Your task to perform on an android device: toggle improve location accuracy Image 0: 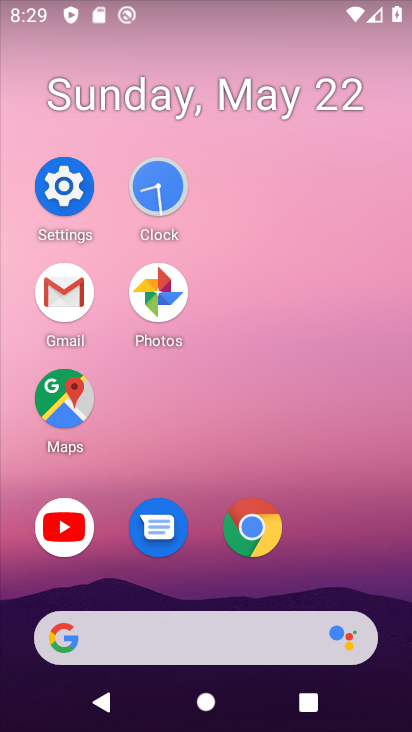
Step 0: click (87, 200)
Your task to perform on an android device: toggle improve location accuracy Image 1: 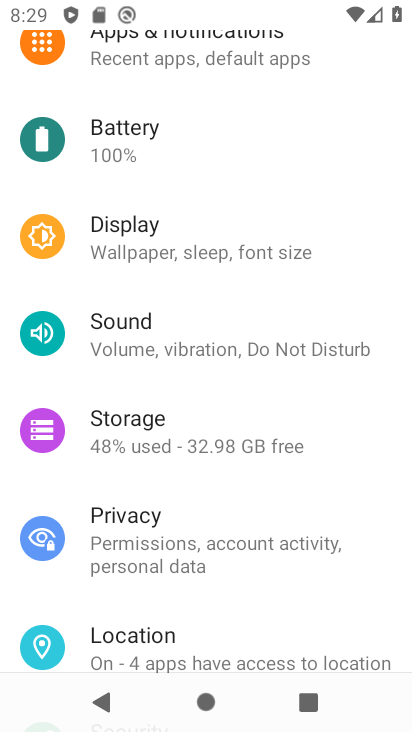
Step 1: click (209, 643)
Your task to perform on an android device: toggle improve location accuracy Image 2: 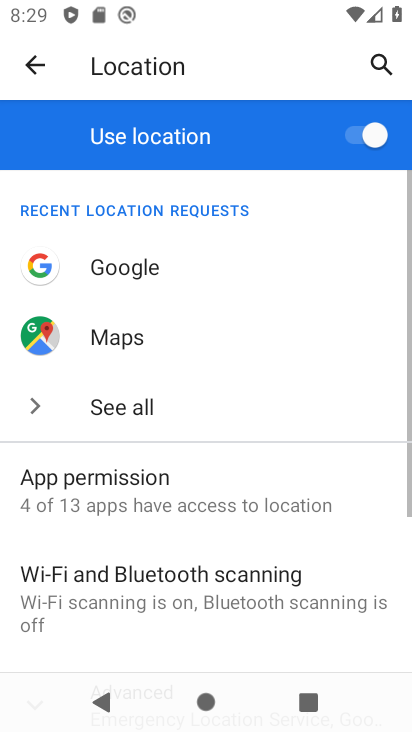
Step 2: drag from (258, 539) to (297, 129)
Your task to perform on an android device: toggle improve location accuracy Image 3: 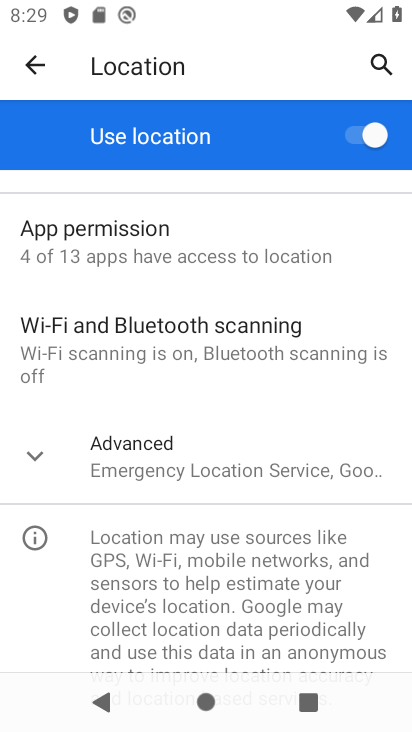
Step 3: click (182, 472)
Your task to perform on an android device: toggle improve location accuracy Image 4: 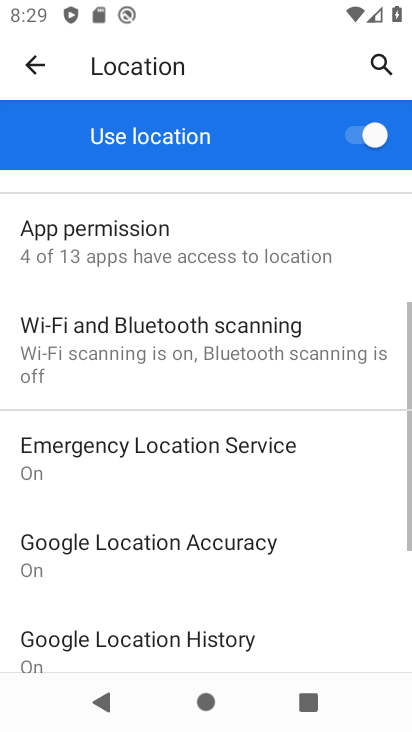
Step 4: drag from (223, 585) to (243, 252)
Your task to perform on an android device: toggle improve location accuracy Image 5: 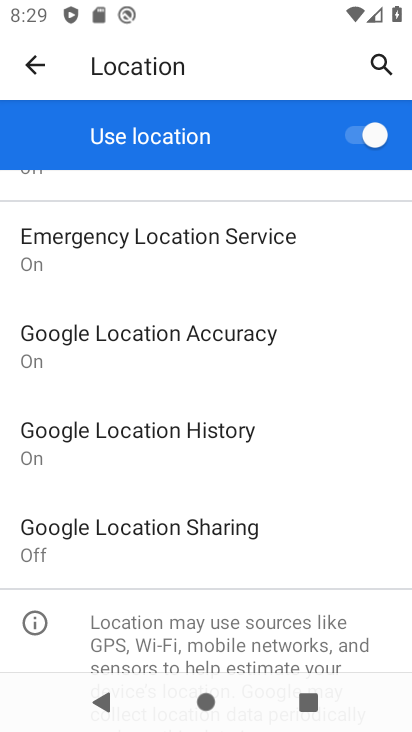
Step 5: click (232, 350)
Your task to perform on an android device: toggle improve location accuracy Image 6: 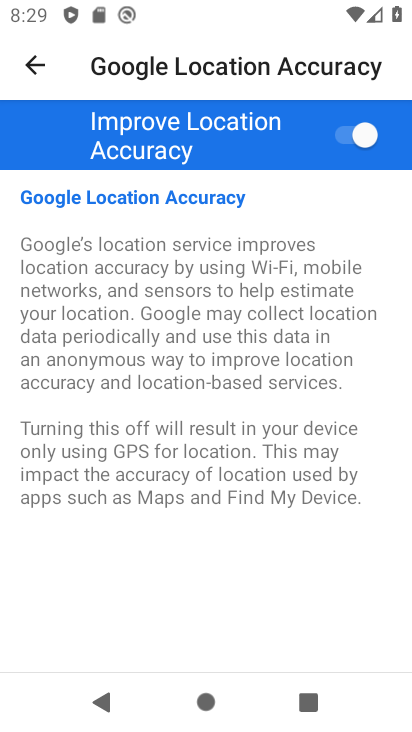
Step 6: click (360, 132)
Your task to perform on an android device: toggle improve location accuracy Image 7: 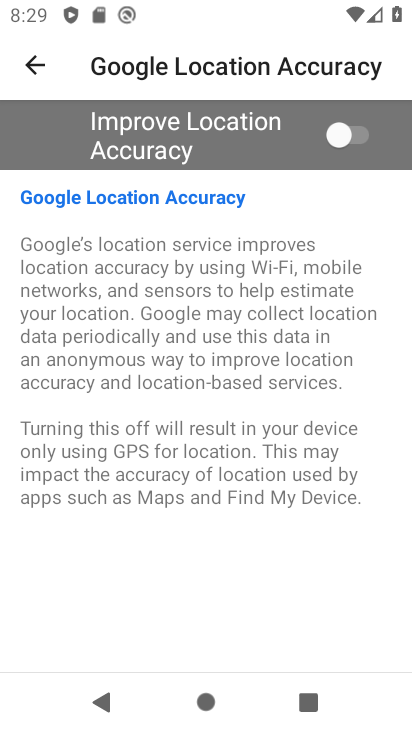
Step 7: task complete